Your task to perform on an android device: Go to Amazon Image 0: 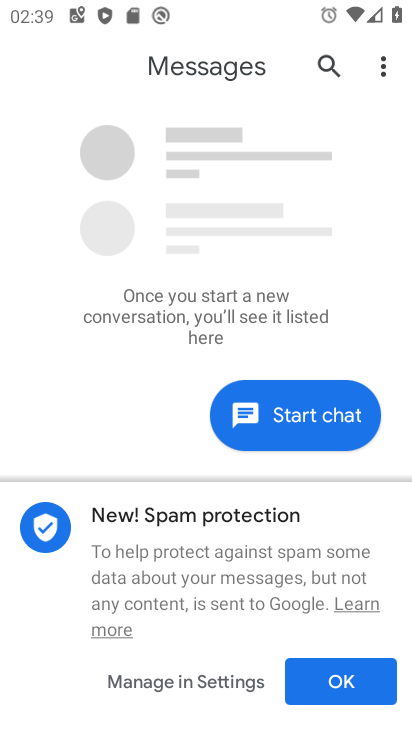
Step 0: press home button
Your task to perform on an android device: Go to Amazon Image 1: 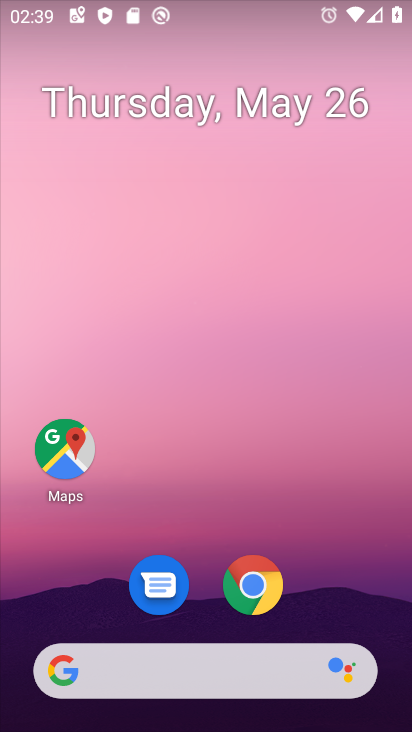
Step 1: click (263, 591)
Your task to perform on an android device: Go to Amazon Image 2: 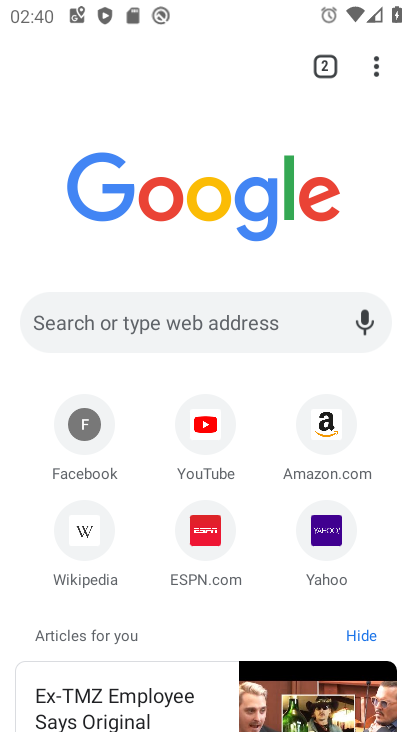
Step 2: click (372, 66)
Your task to perform on an android device: Go to Amazon Image 3: 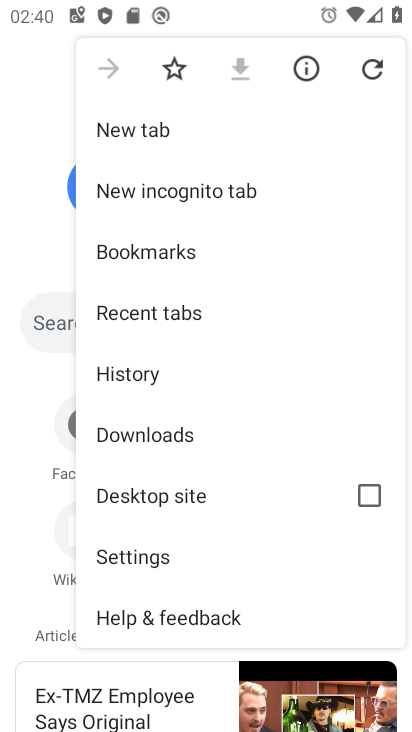
Step 3: click (276, 121)
Your task to perform on an android device: Go to Amazon Image 4: 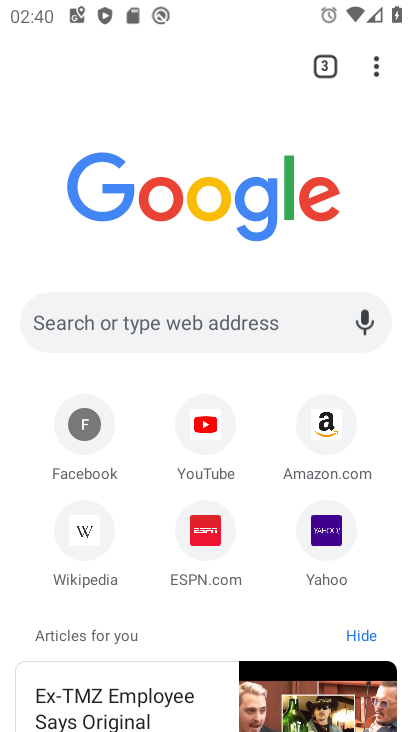
Step 4: click (330, 417)
Your task to perform on an android device: Go to Amazon Image 5: 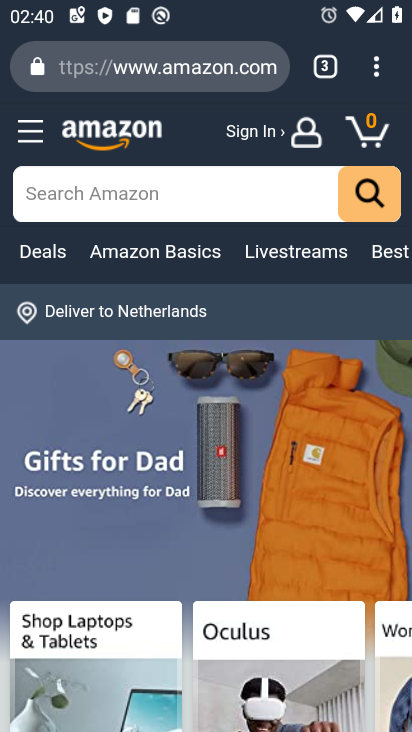
Step 5: task complete